Your task to perform on an android device: change notification settings in the gmail app Image 0: 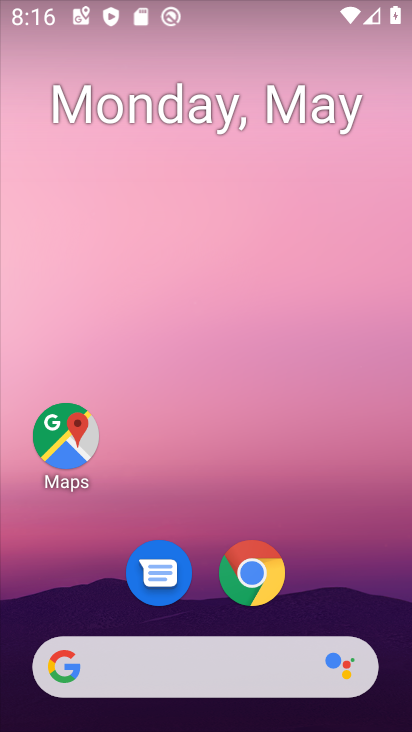
Step 0: drag from (328, 613) to (282, 147)
Your task to perform on an android device: change notification settings in the gmail app Image 1: 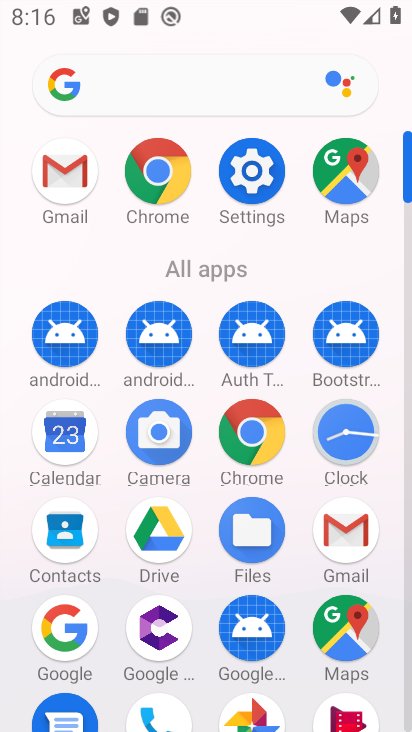
Step 1: click (253, 186)
Your task to perform on an android device: change notification settings in the gmail app Image 2: 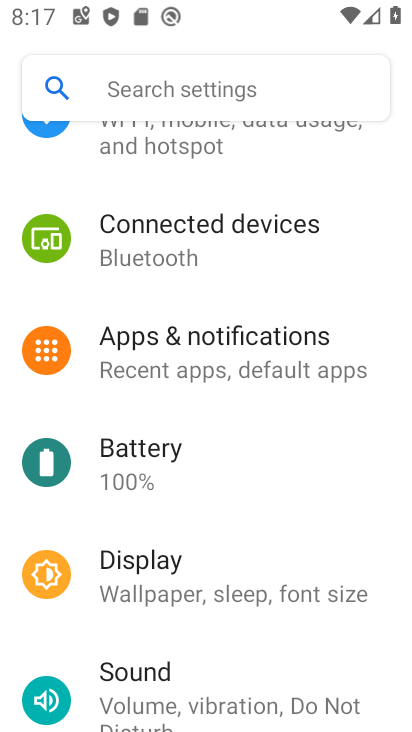
Step 2: click (264, 344)
Your task to perform on an android device: change notification settings in the gmail app Image 3: 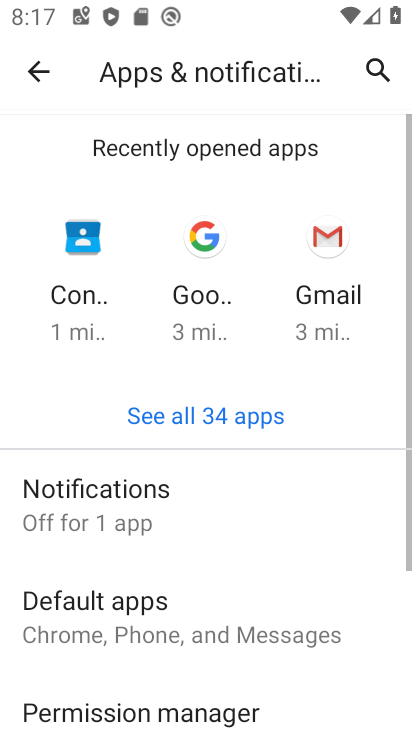
Step 3: task complete